Your task to perform on an android device: find which apps use the phone's location Image 0: 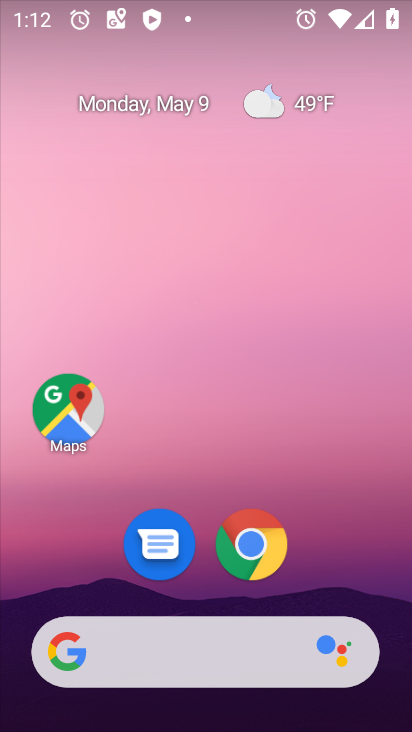
Step 0: drag from (173, 657) to (217, 389)
Your task to perform on an android device: find which apps use the phone's location Image 1: 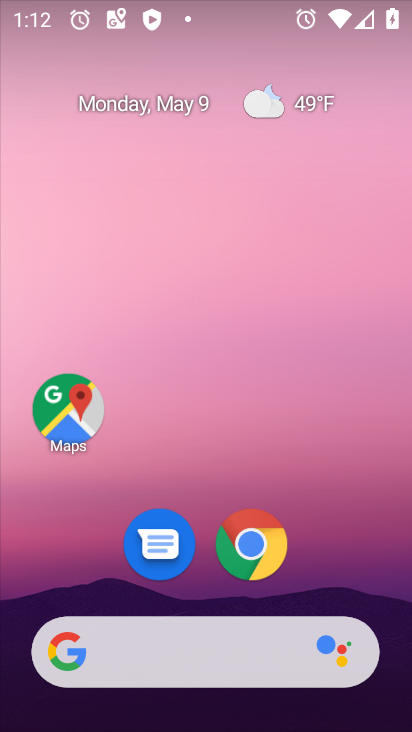
Step 1: drag from (160, 648) to (176, 401)
Your task to perform on an android device: find which apps use the phone's location Image 2: 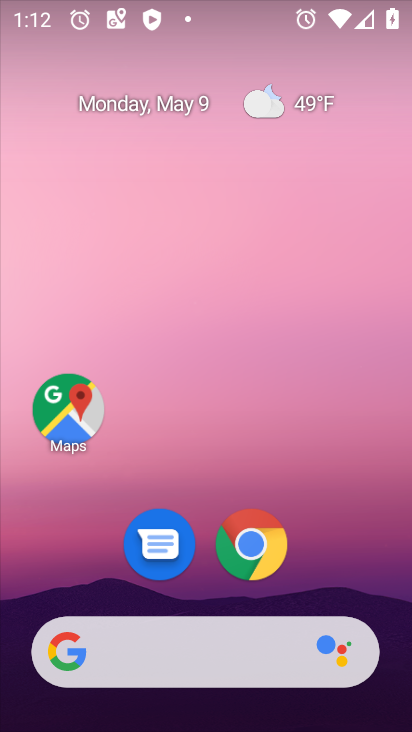
Step 2: drag from (186, 620) to (207, 20)
Your task to perform on an android device: find which apps use the phone's location Image 3: 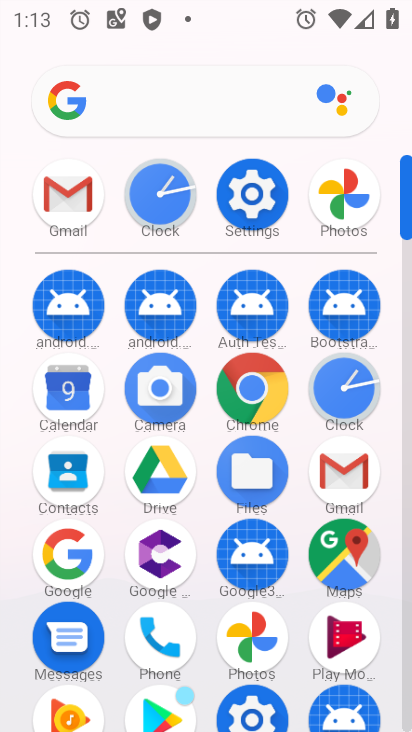
Step 3: click (239, 202)
Your task to perform on an android device: find which apps use the phone's location Image 4: 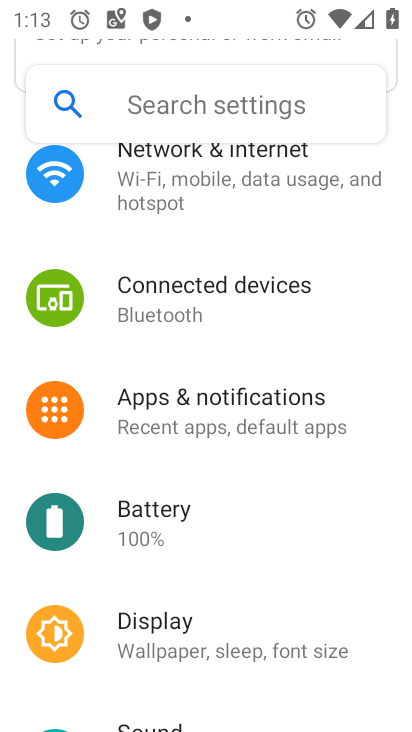
Step 4: drag from (189, 534) to (141, 104)
Your task to perform on an android device: find which apps use the phone's location Image 5: 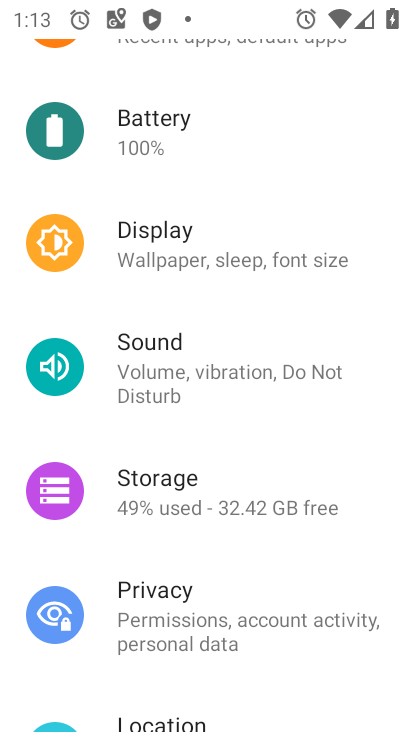
Step 5: drag from (144, 597) to (141, 130)
Your task to perform on an android device: find which apps use the phone's location Image 6: 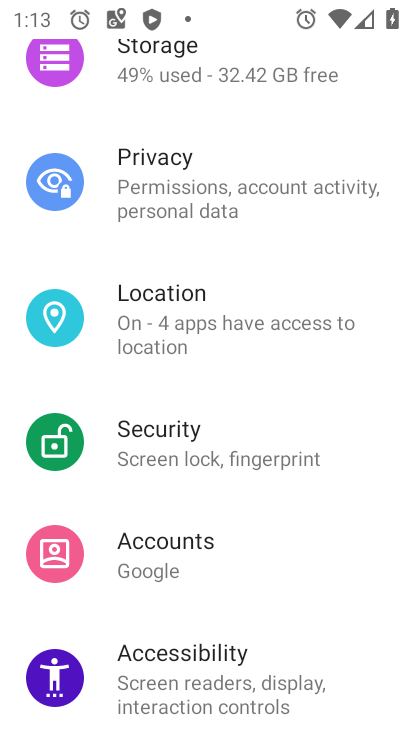
Step 6: click (222, 321)
Your task to perform on an android device: find which apps use the phone's location Image 7: 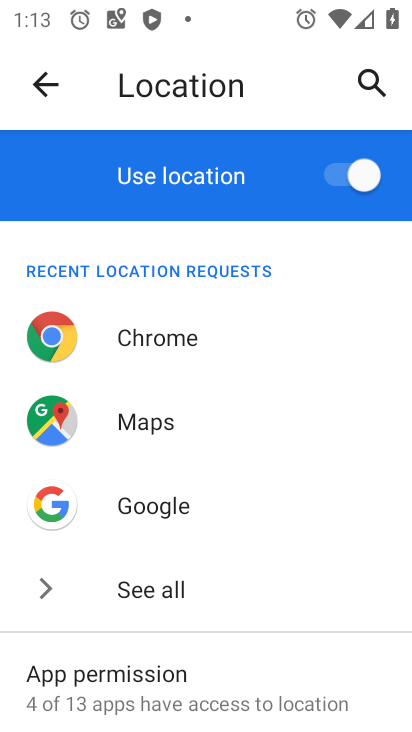
Step 7: click (129, 693)
Your task to perform on an android device: find which apps use the phone's location Image 8: 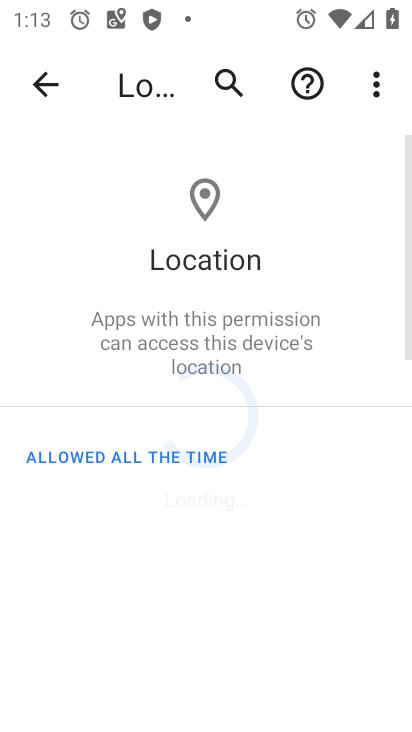
Step 8: task complete